Your task to perform on an android device: Clear the shopping cart on bestbuy. Add "logitech g pro" to the cart on bestbuy, then select checkout. Image 0: 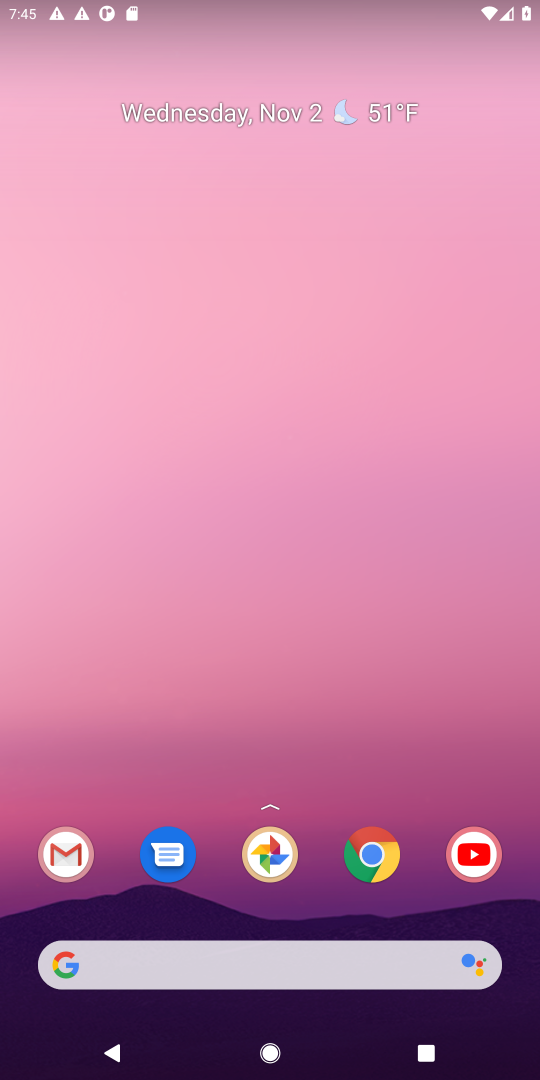
Step 0: click (371, 868)
Your task to perform on an android device: Clear the shopping cart on bestbuy. Add "logitech g pro" to the cart on bestbuy, then select checkout. Image 1: 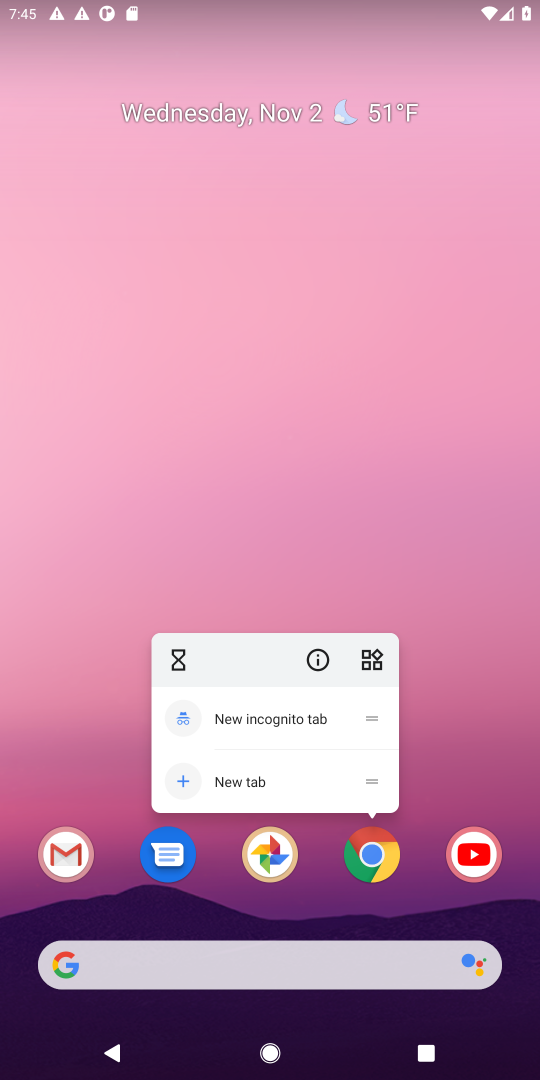
Step 1: click (361, 852)
Your task to perform on an android device: Clear the shopping cart on bestbuy. Add "logitech g pro" to the cart on bestbuy, then select checkout. Image 2: 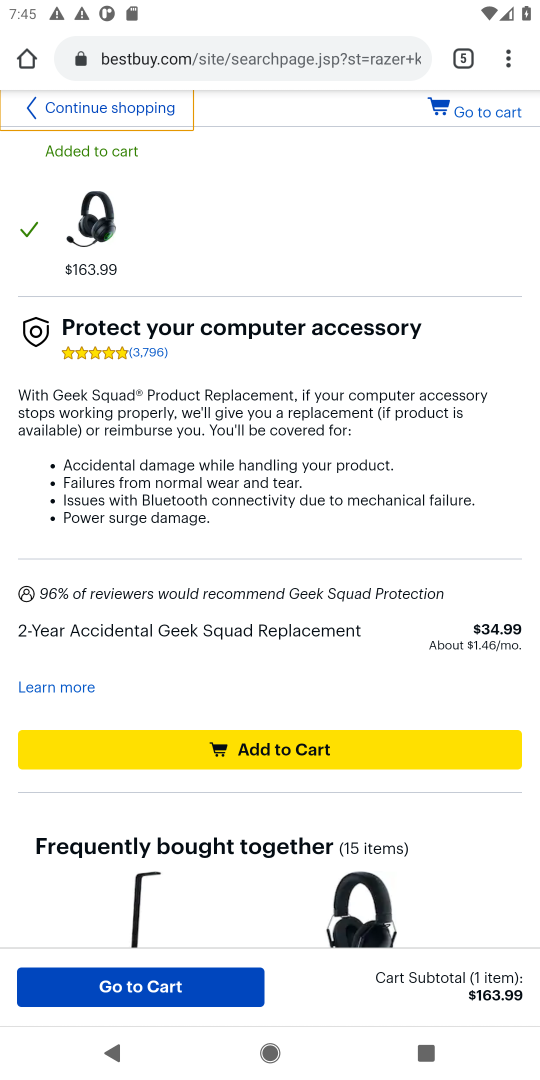
Step 2: click (130, 107)
Your task to perform on an android device: Clear the shopping cart on bestbuy. Add "logitech g pro" to the cart on bestbuy, then select checkout. Image 3: 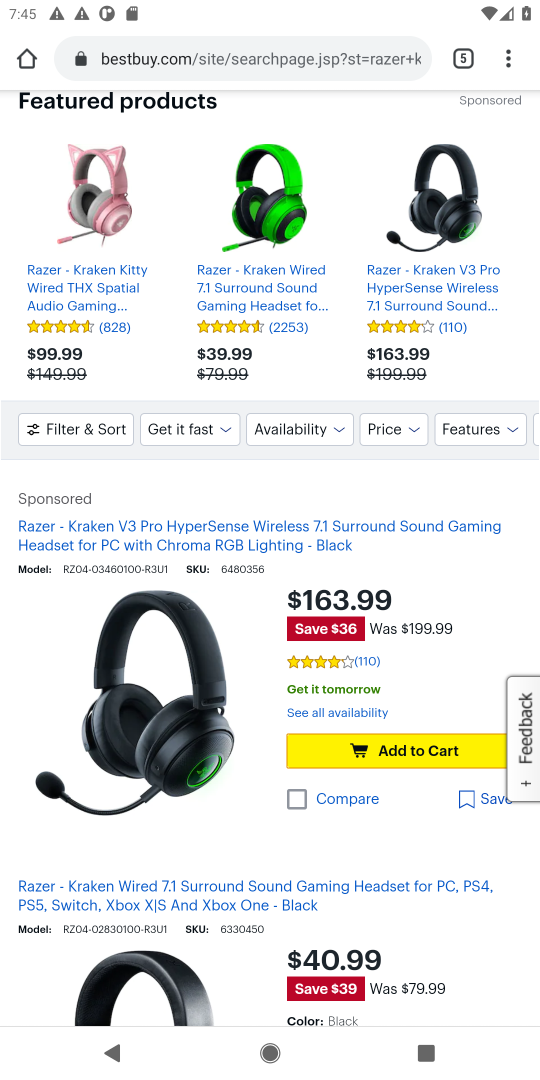
Step 3: drag from (310, 115) to (366, 1057)
Your task to perform on an android device: Clear the shopping cart on bestbuy. Add "logitech g pro" to the cart on bestbuy, then select checkout. Image 4: 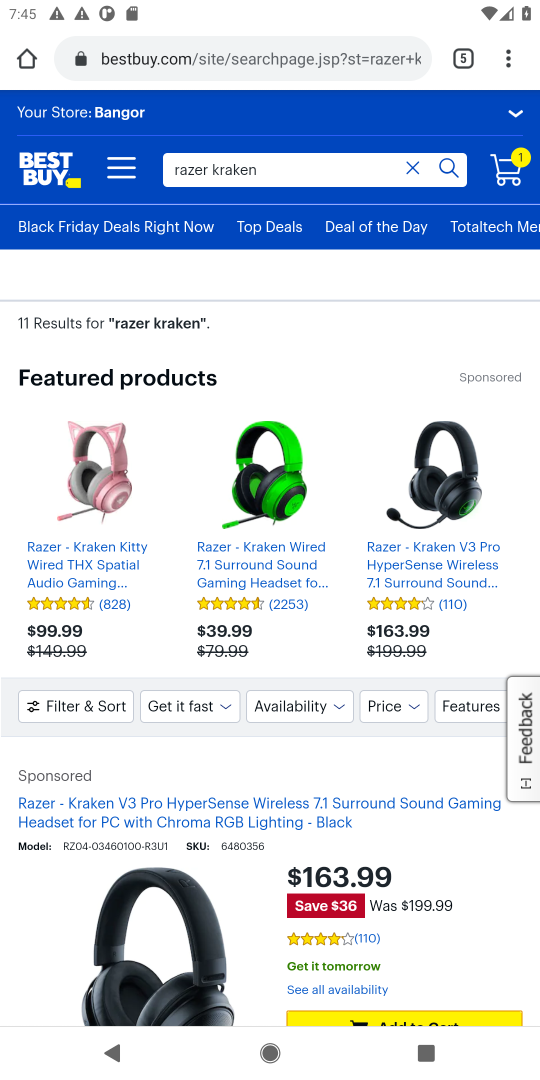
Step 4: click (273, 169)
Your task to perform on an android device: Clear the shopping cart on bestbuy. Add "logitech g pro" to the cart on bestbuy, then select checkout. Image 5: 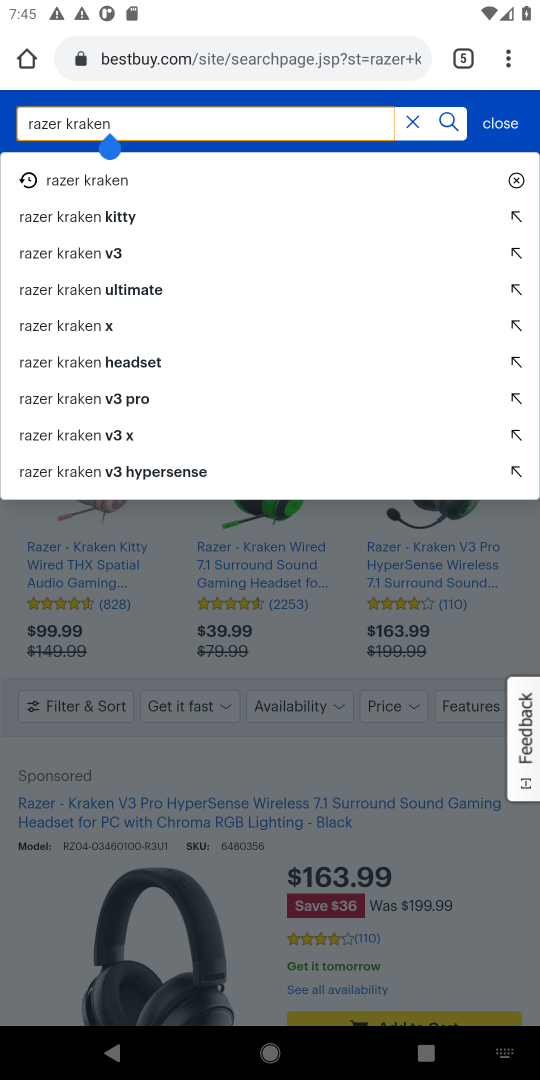
Step 5: click (418, 119)
Your task to perform on an android device: Clear the shopping cart on bestbuy. Add "logitech g pro" to the cart on bestbuy, then select checkout. Image 6: 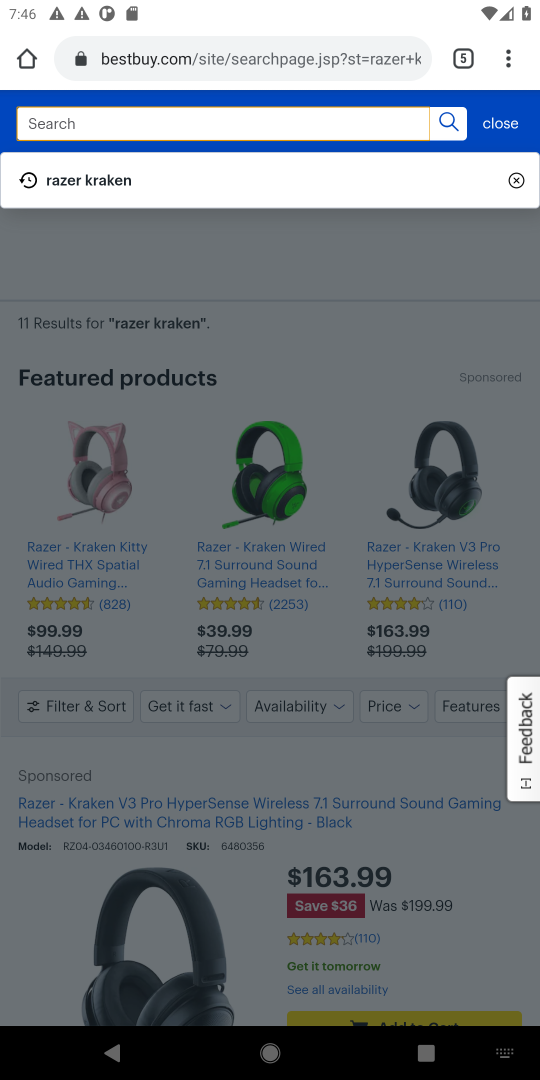
Step 6: type "target"
Your task to perform on an android device: Clear the shopping cart on bestbuy. Add "logitech g pro" to the cart on bestbuy, then select checkout. Image 7: 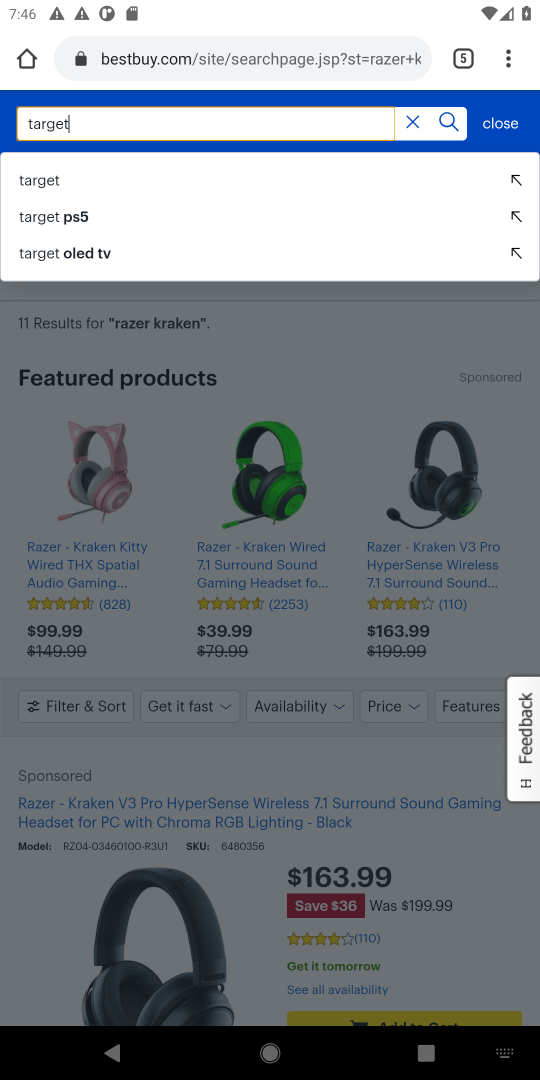
Step 7: click (45, 177)
Your task to perform on an android device: Clear the shopping cart on bestbuy. Add "logitech g pro" to the cart on bestbuy, then select checkout. Image 8: 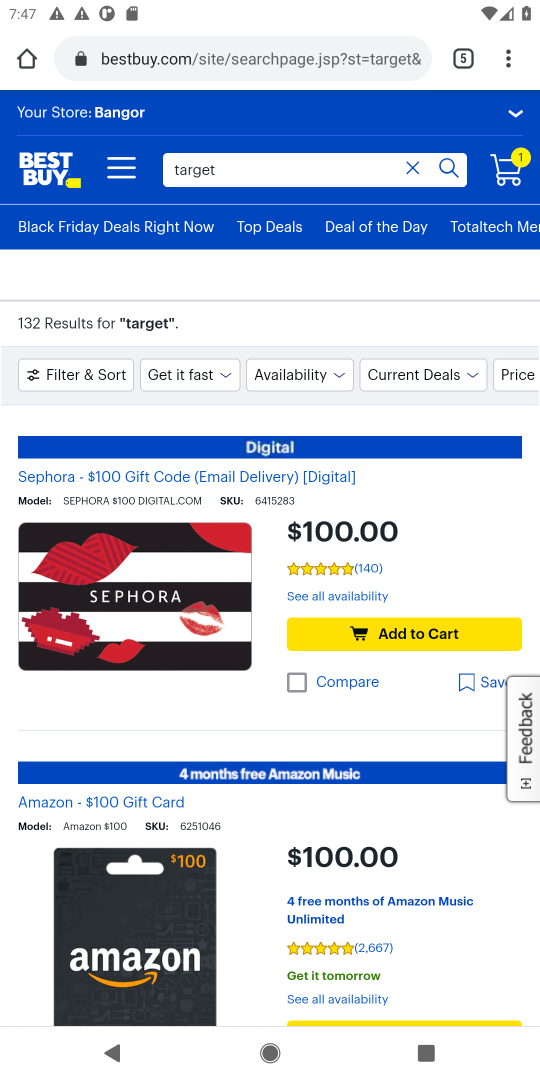
Step 8: drag from (429, 952) to (403, 293)
Your task to perform on an android device: Clear the shopping cart on bestbuy. Add "logitech g pro" to the cart on bestbuy, then select checkout. Image 9: 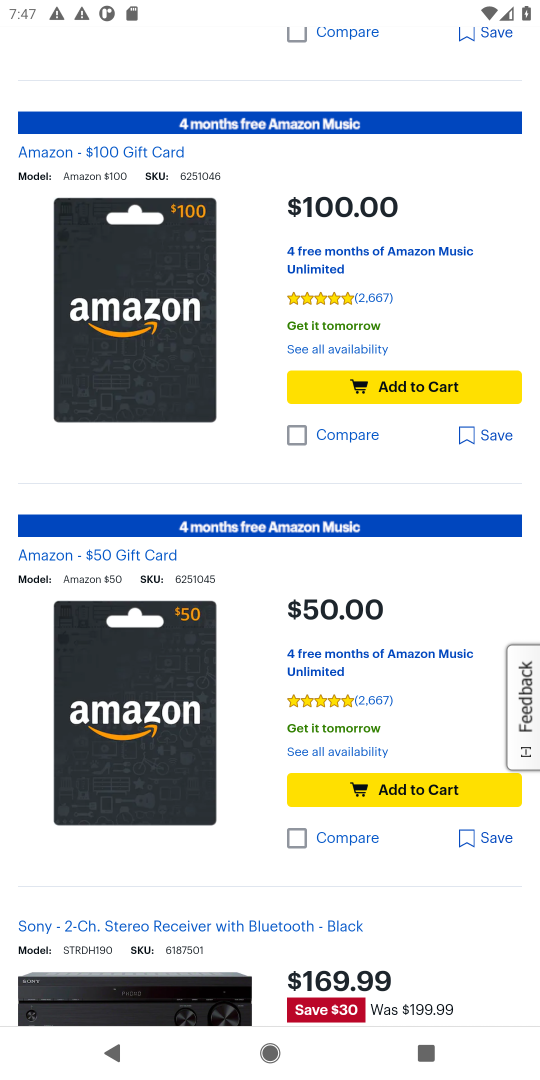
Step 9: drag from (498, 241) to (471, 877)
Your task to perform on an android device: Clear the shopping cart on bestbuy. Add "logitech g pro" to the cart on bestbuy, then select checkout. Image 10: 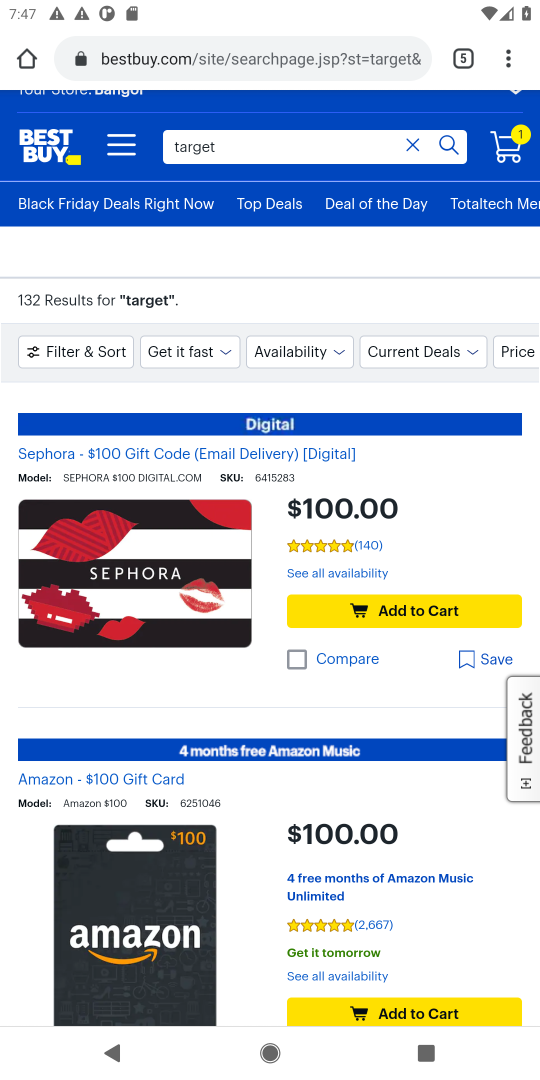
Step 10: click (520, 142)
Your task to perform on an android device: Clear the shopping cart on bestbuy. Add "logitech g pro" to the cart on bestbuy, then select checkout. Image 11: 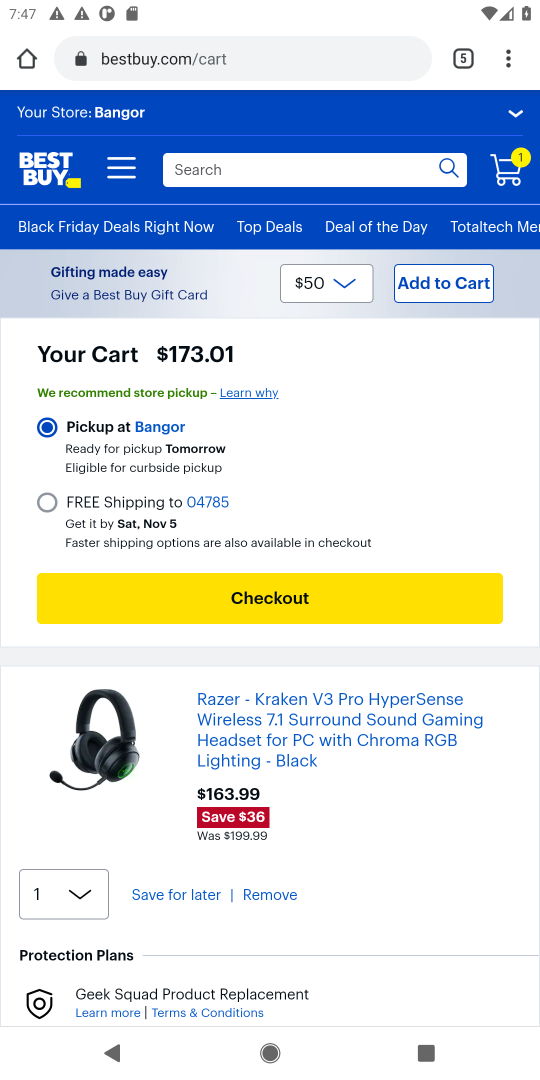
Step 11: click (258, 890)
Your task to perform on an android device: Clear the shopping cart on bestbuy. Add "logitech g pro" to the cart on bestbuy, then select checkout. Image 12: 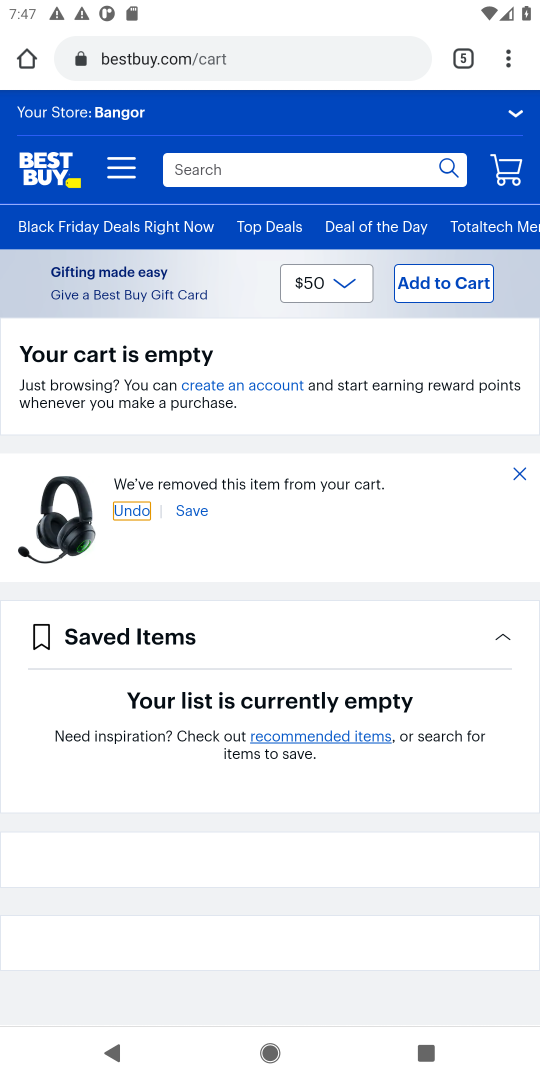
Step 12: click (516, 472)
Your task to perform on an android device: Clear the shopping cart on bestbuy. Add "logitech g pro" to the cart on bestbuy, then select checkout. Image 13: 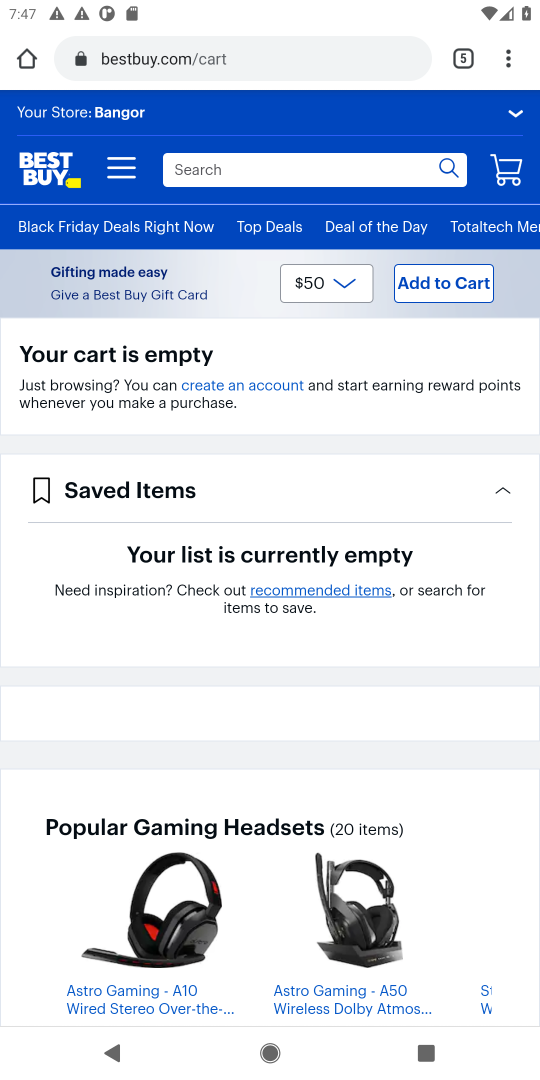
Step 13: click (218, 172)
Your task to perform on an android device: Clear the shopping cart on bestbuy. Add "logitech g pro" to the cart on bestbuy, then select checkout. Image 14: 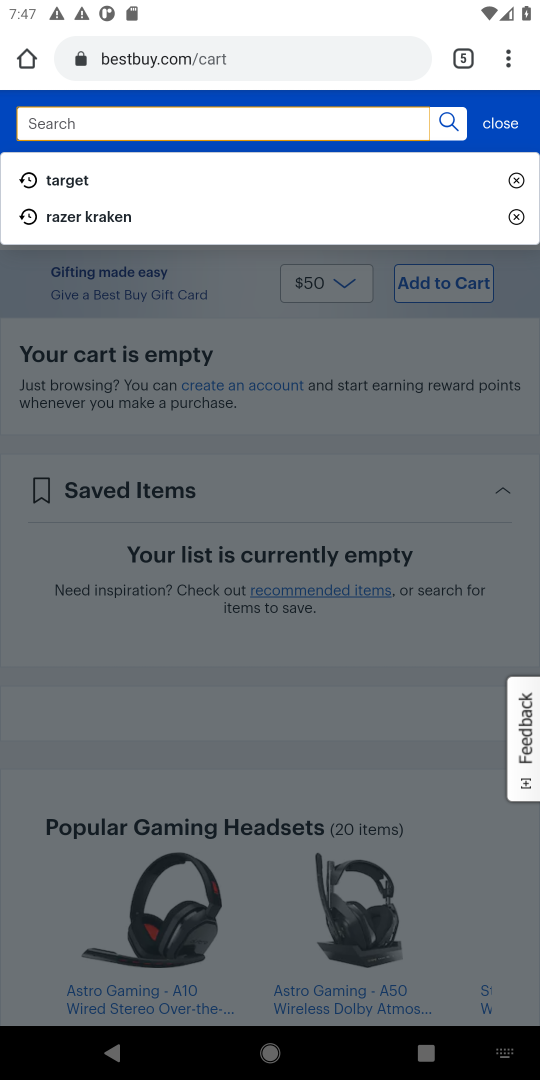
Step 14: type "logitech g pro"
Your task to perform on an android device: Clear the shopping cart on bestbuy. Add "logitech g pro" to the cart on bestbuy, then select checkout. Image 15: 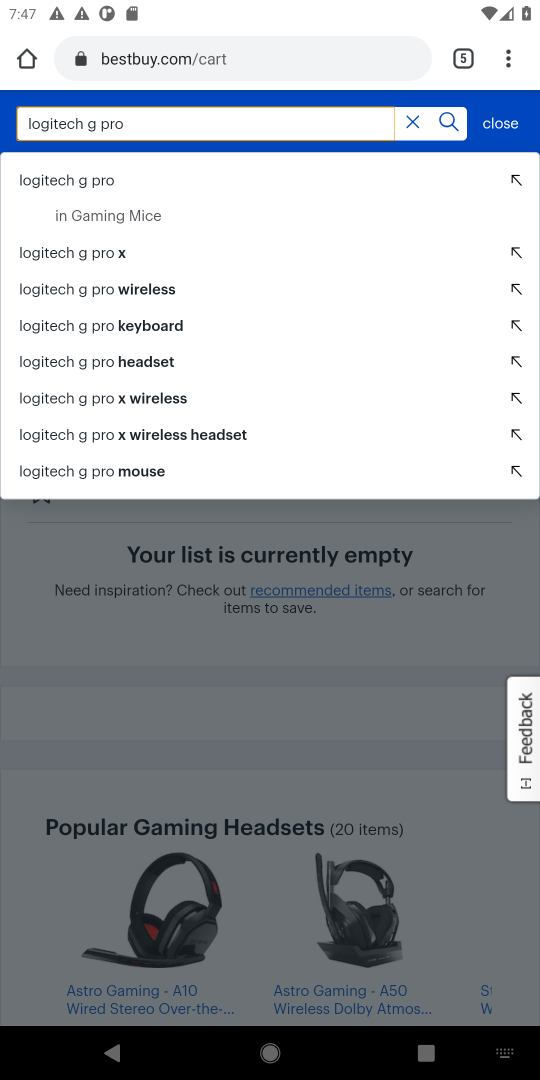
Step 15: click (74, 176)
Your task to perform on an android device: Clear the shopping cart on bestbuy. Add "logitech g pro" to the cart on bestbuy, then select checkout. Image 16: 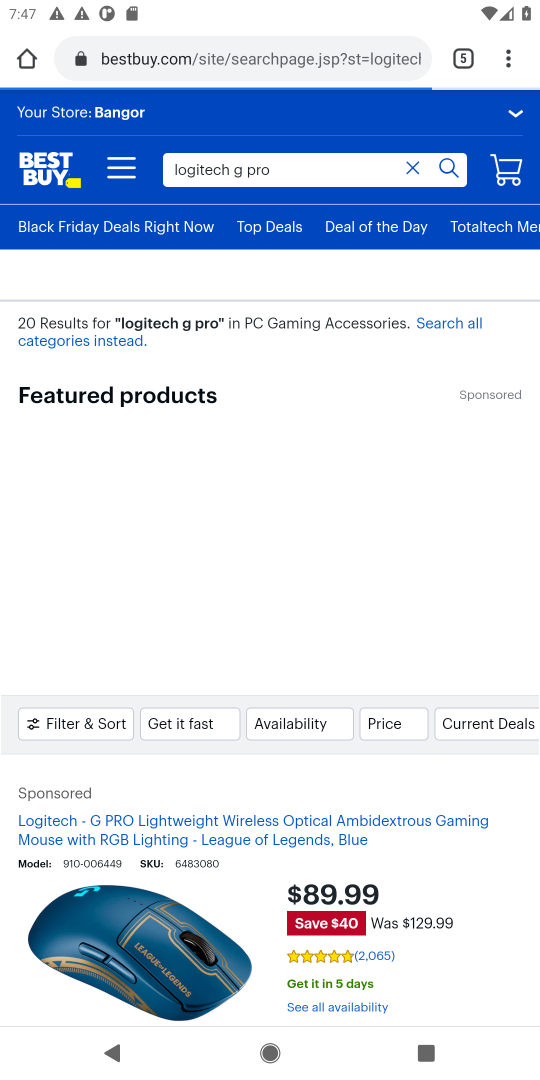
Step 16: drag from (391, 857) to (370, 450)
Your task to perform on an android device: Clear the shopping cart on bestbuy. Add "logitech g pro" to the cart on bestbuy, then select checkout. Image 17: 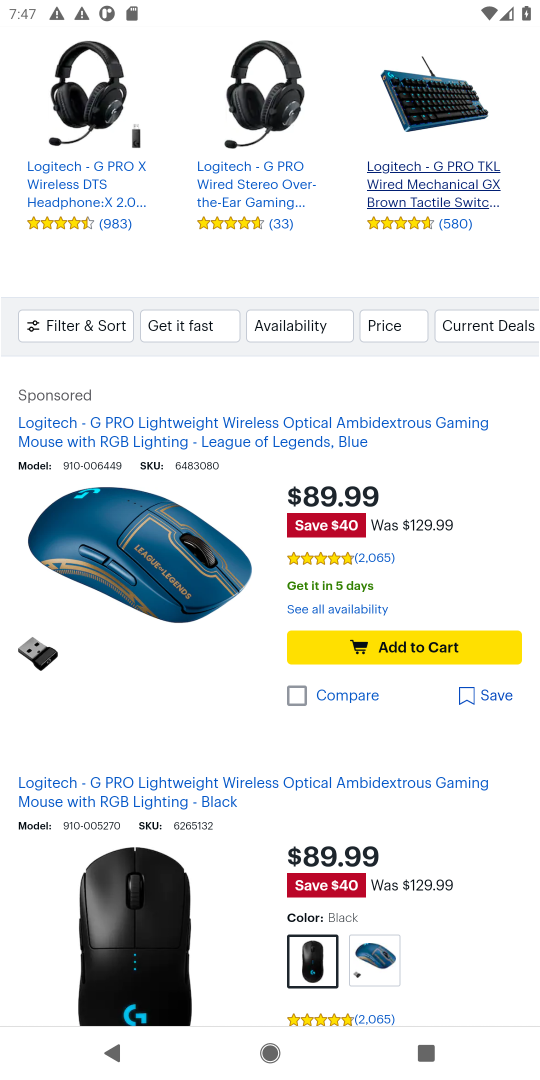
Step 17: click (436, 640)
Your task to perform on an android device: Clear the shopping cart on bestbuy. Add "logitech g pro" to the cart on bestbuy, then select checkout. Image 18: 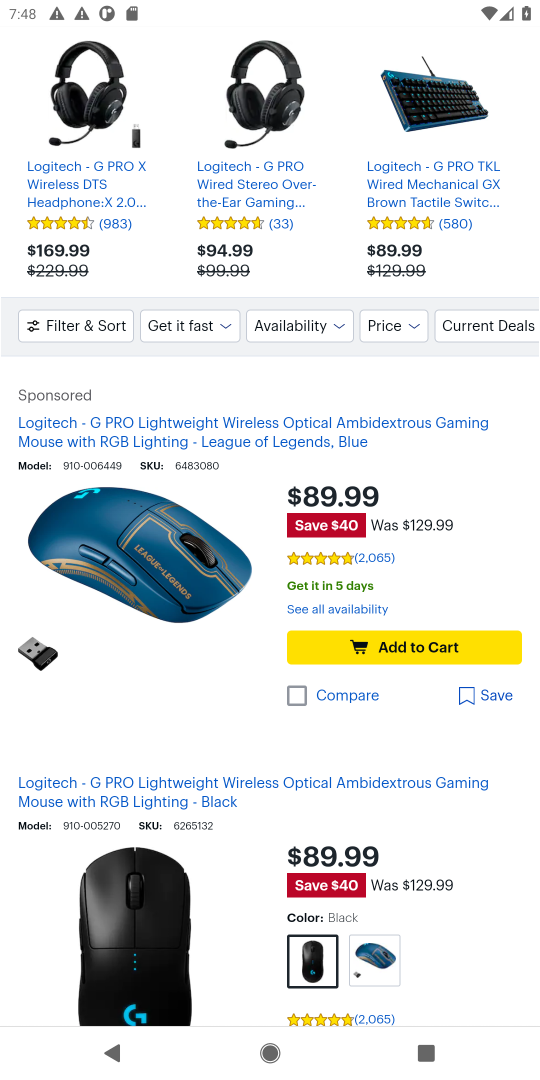
Step 18: click (404, 649)
Your task to perform on an android device: Clear the shopping cart on bestbuy. Add "logitech g pro" to the cart on bestbuy, then select checkout. Image 19: 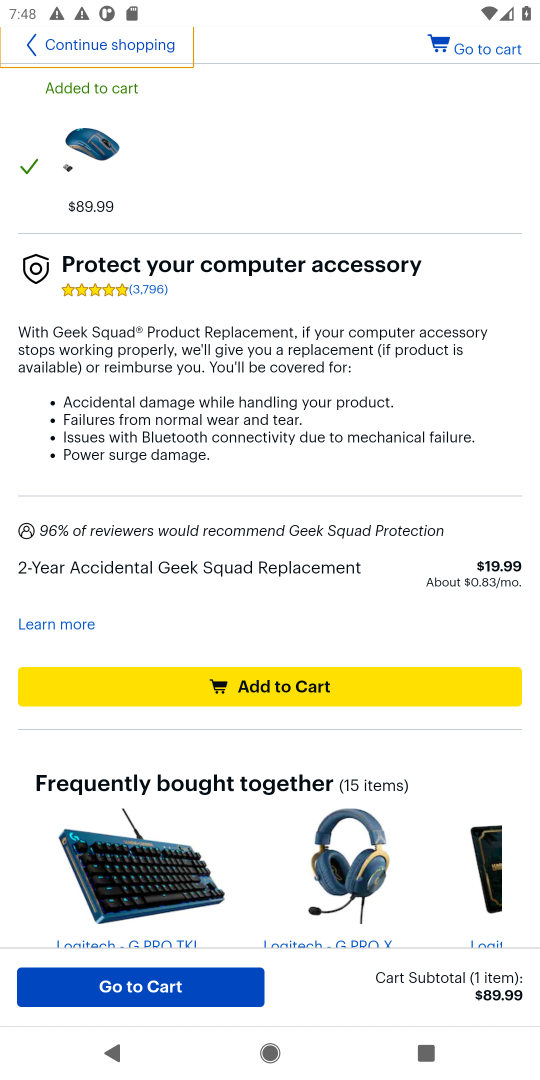
Step 19: click (172, 988)
Your task to perform on an android device: Clear the shopping cart on bestbuy. Add "logitech g pro" to the cart on bestbuy, then select checkout. Image 20: 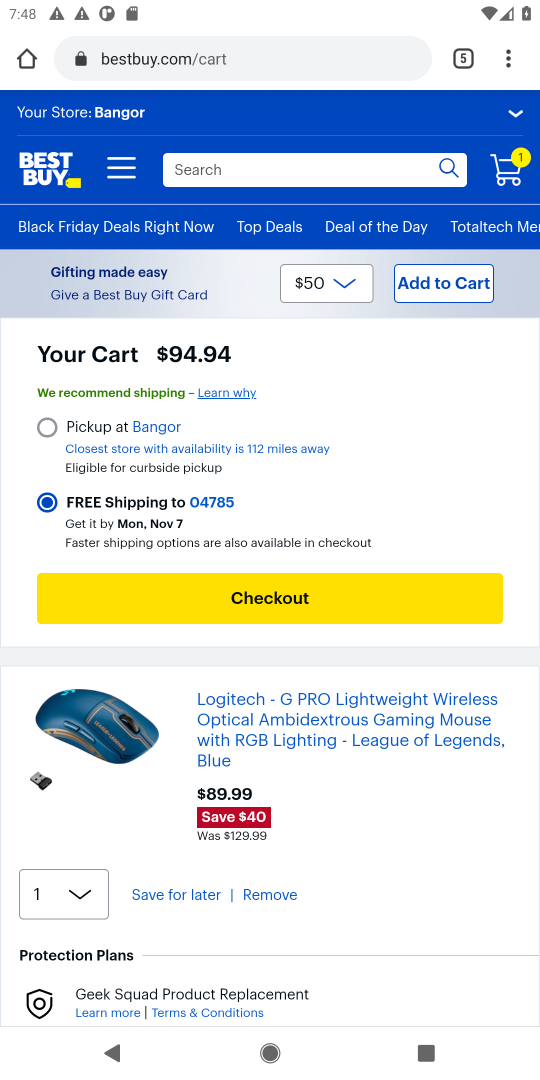
Step 20: click (275, 589)
Your task to perform on an android device: Clear the shopping cart on bestbuy. Add "logitech g pro" to the cart on bestbuy, then select checkout. Image 21: 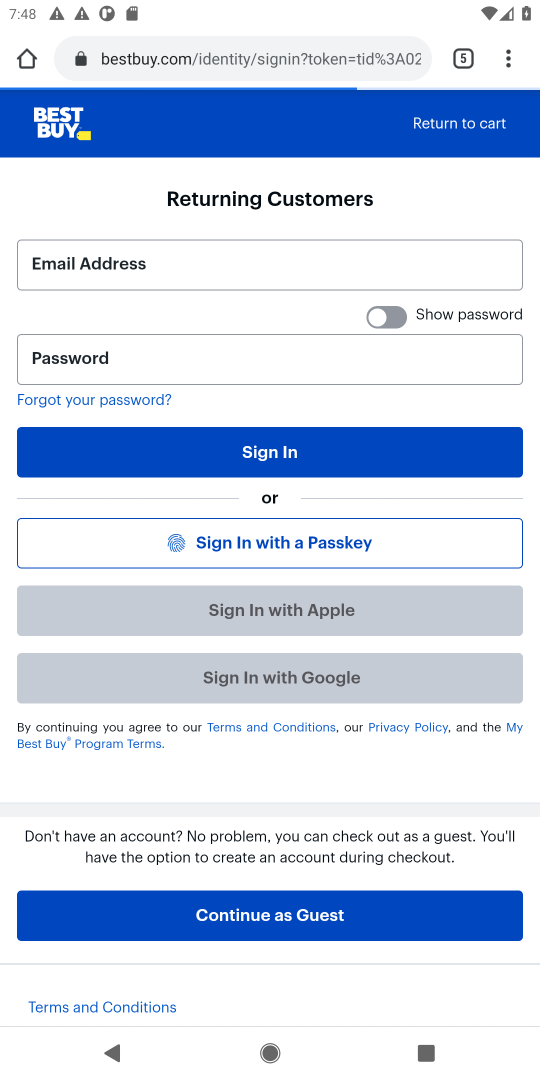
Step 21: task complete